Your task to perform on an android device: Check the news Image 0: 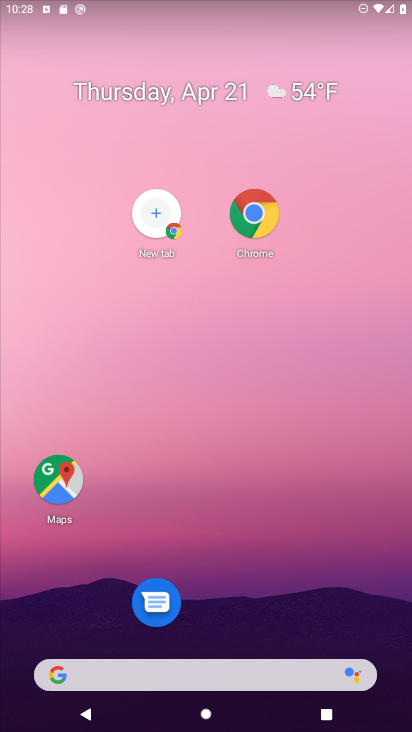
Step 0: click (196, 664)
Your task to perform on an android device: Check the news Image 1: 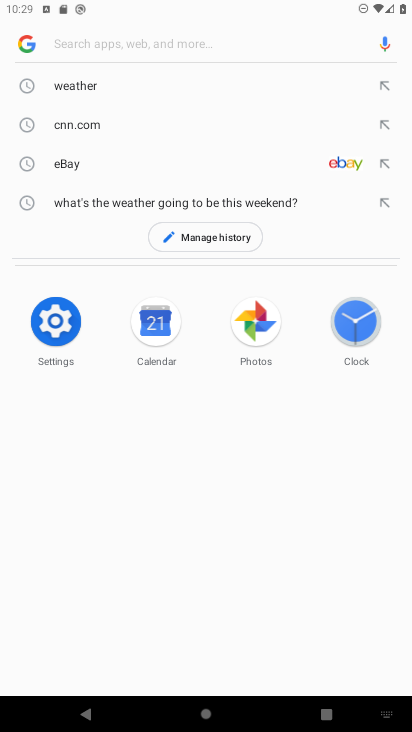
Step 1: click (30, 52)
Your task to perform on an android device: Check the news Image 2: 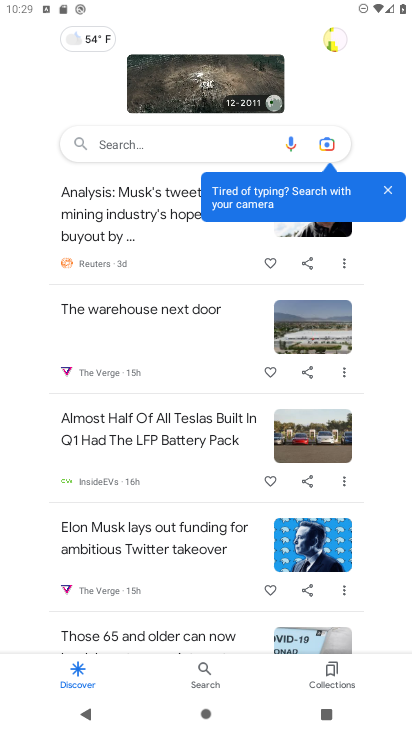
Step 2: task complete